Your task to perform on an android device: open app "Cash App" (install if not already installed) Image 0: 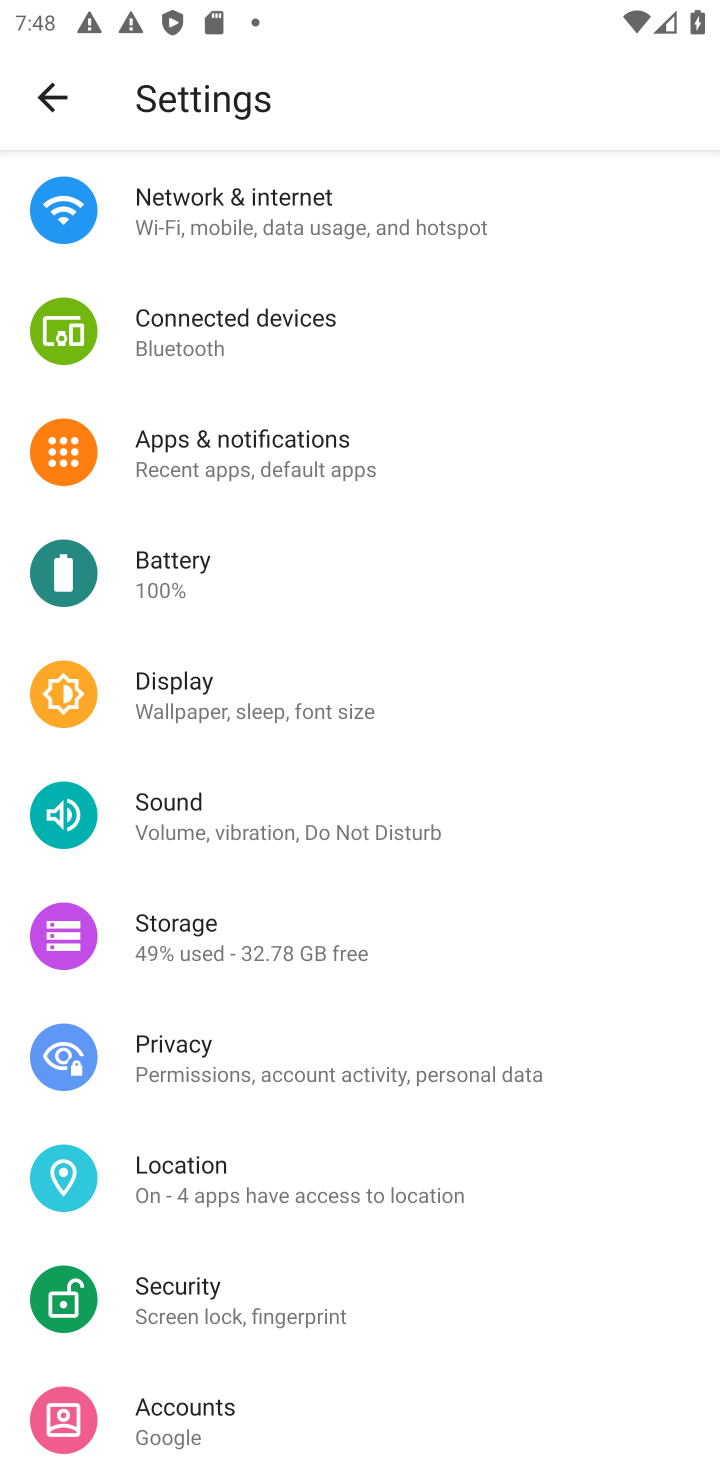
Step 0: press home button
Your task to perform on an android device: open app "Cash App" (install if not already installed) Image 1: 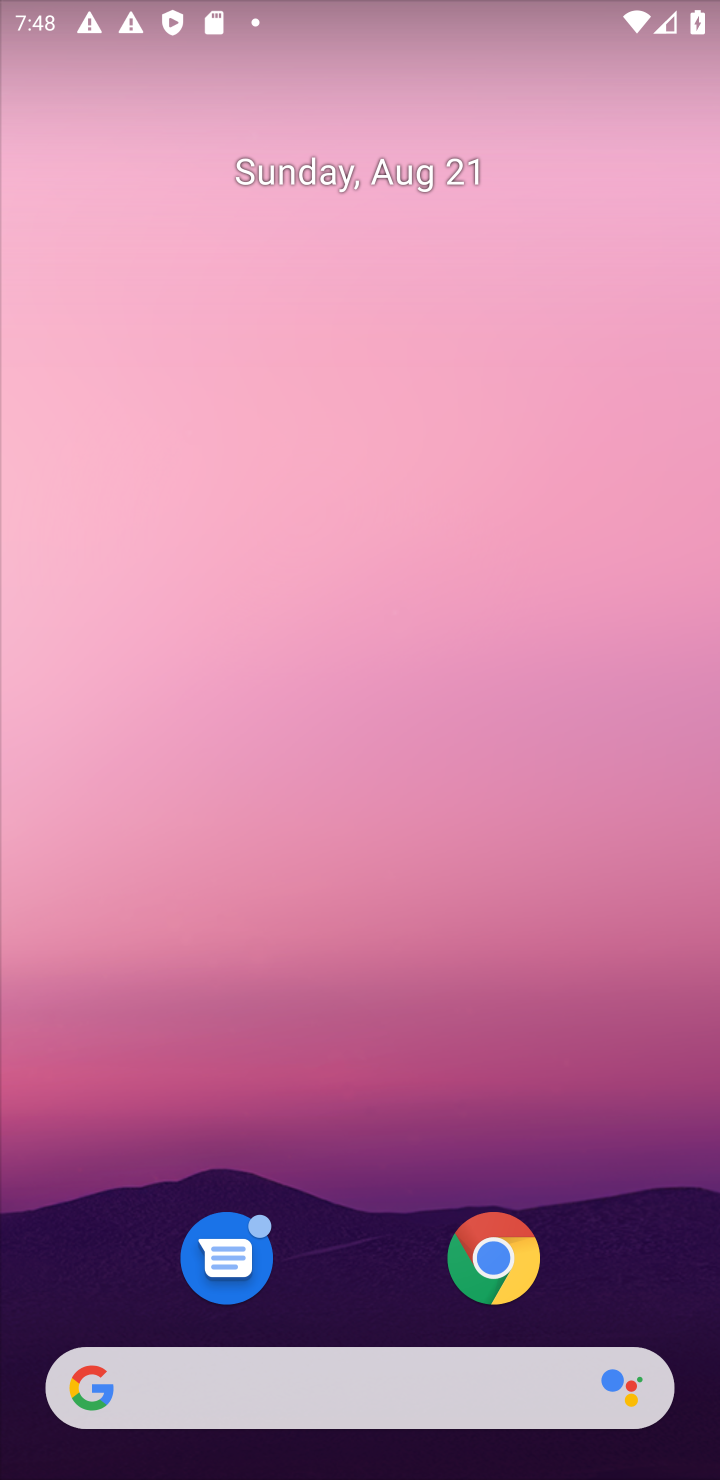
Step 1: drag from (404, 799) to (601, 182)
Your task to perform on an android device: open app "Cash App" (install if not already installed) Image 2: 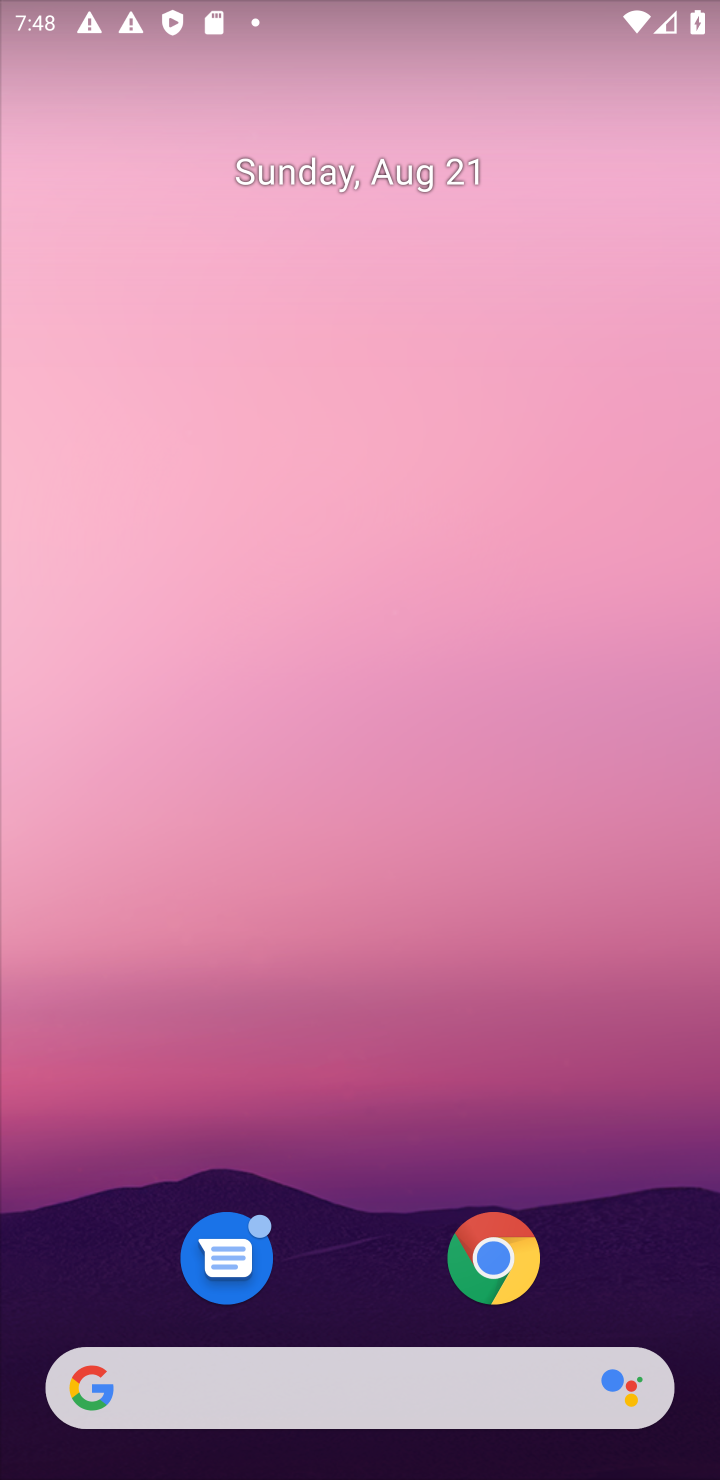
Step 2: drag from (237, 1267) to (312, 0)
Your task to perform on an android device: open app "Cash App" (install if not already installed) Image 3: 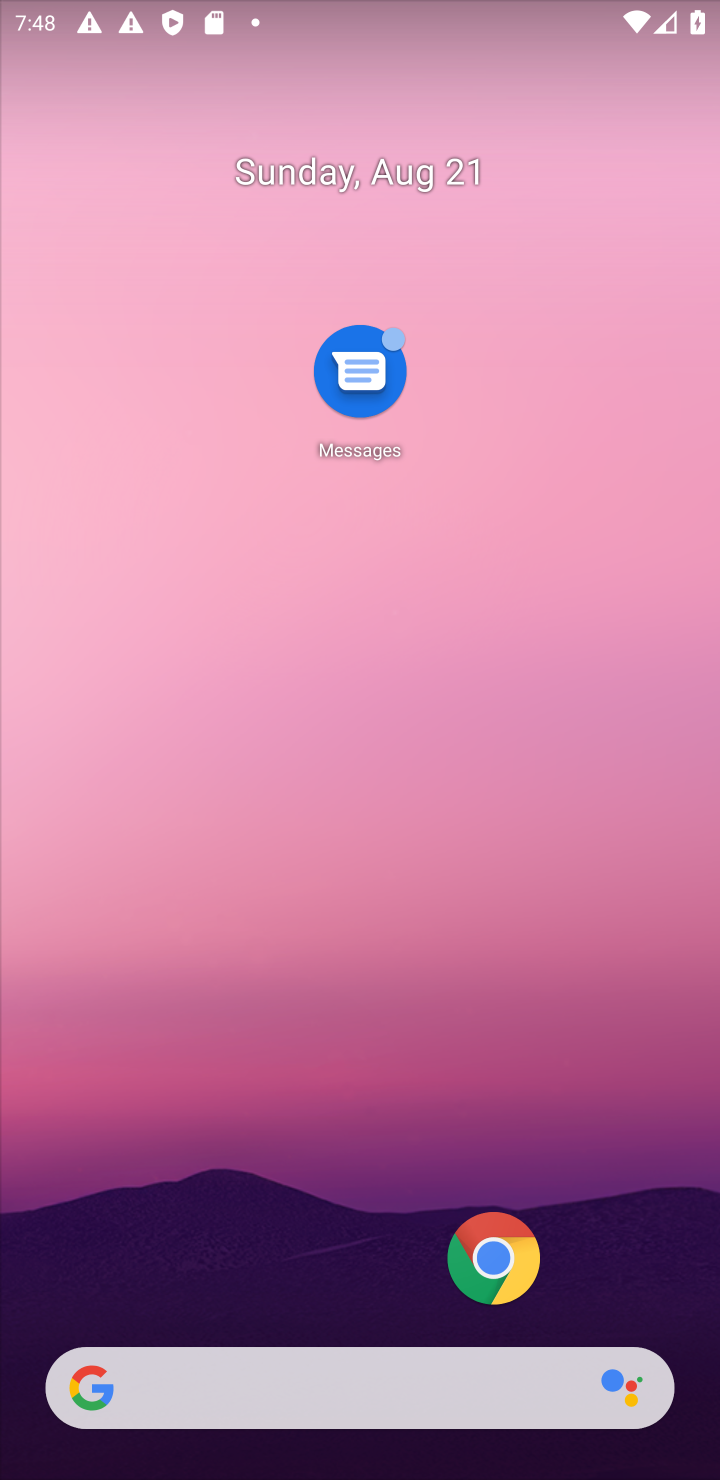
Step 3: drag from (304, 1352) to (393, 0)
Your task to perform on an android device: open app "Cash App" (install if not already installed) Image 4: 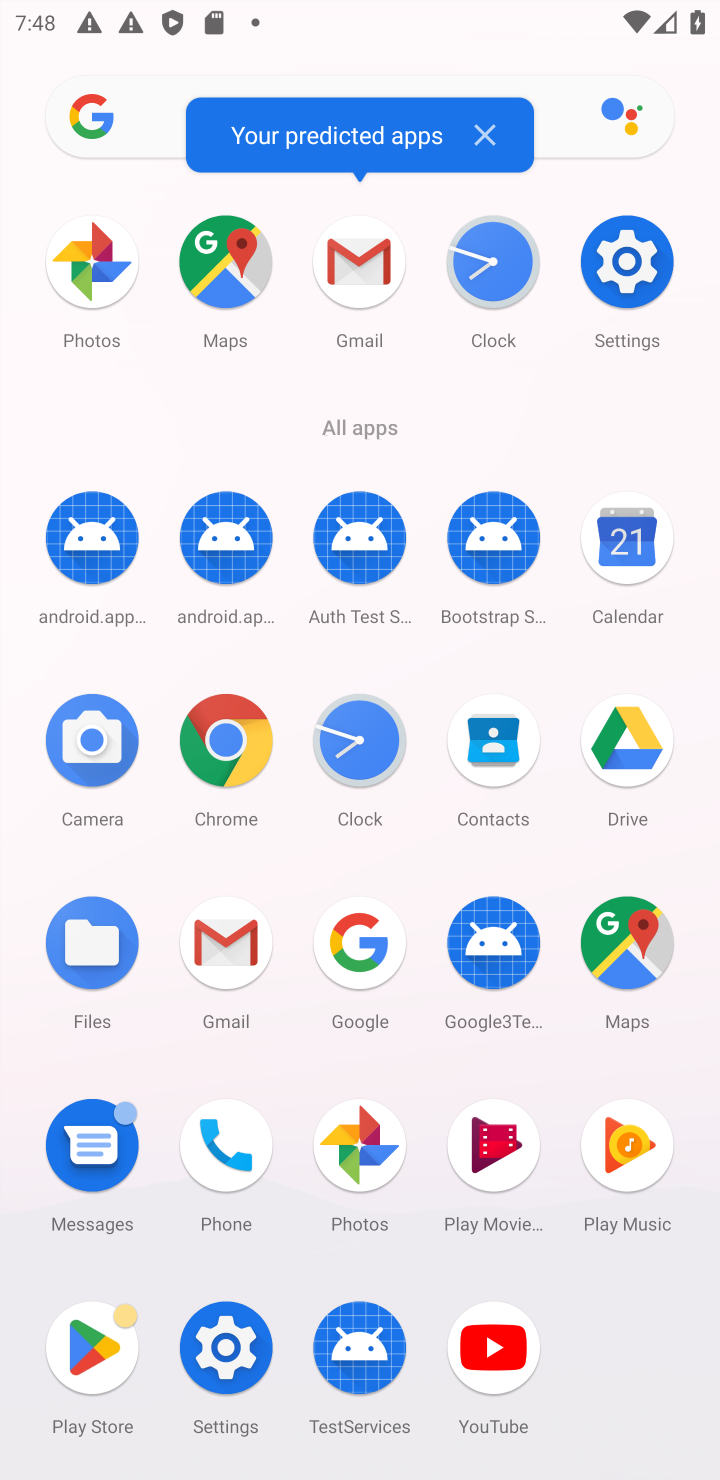
Step 4: click (93, 1351)
Your task to perform on an android device: open app "Cash App" (install if not already installed) Image 5: 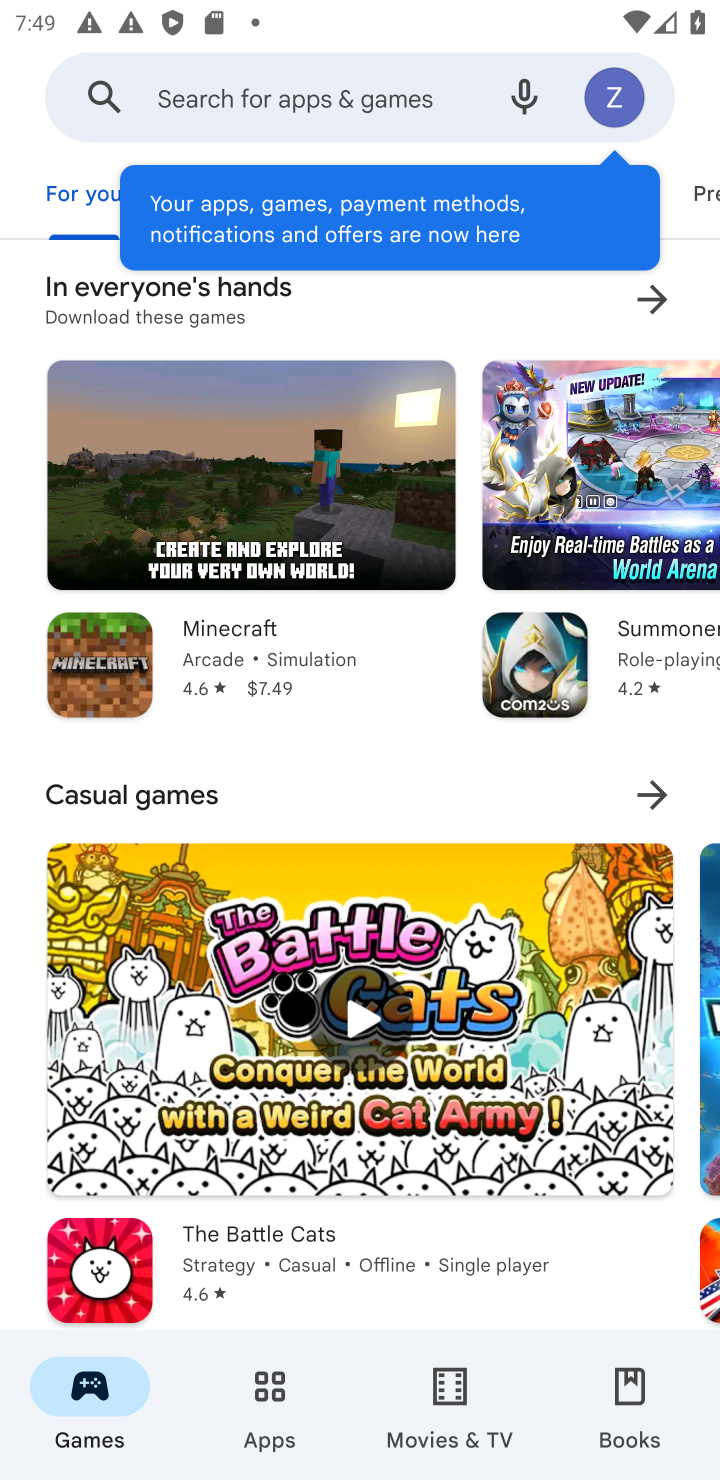
Step 5: click (242, 110)
Your task to perform on an android device: open app "Cash App" (install if not already installed) Image 6: 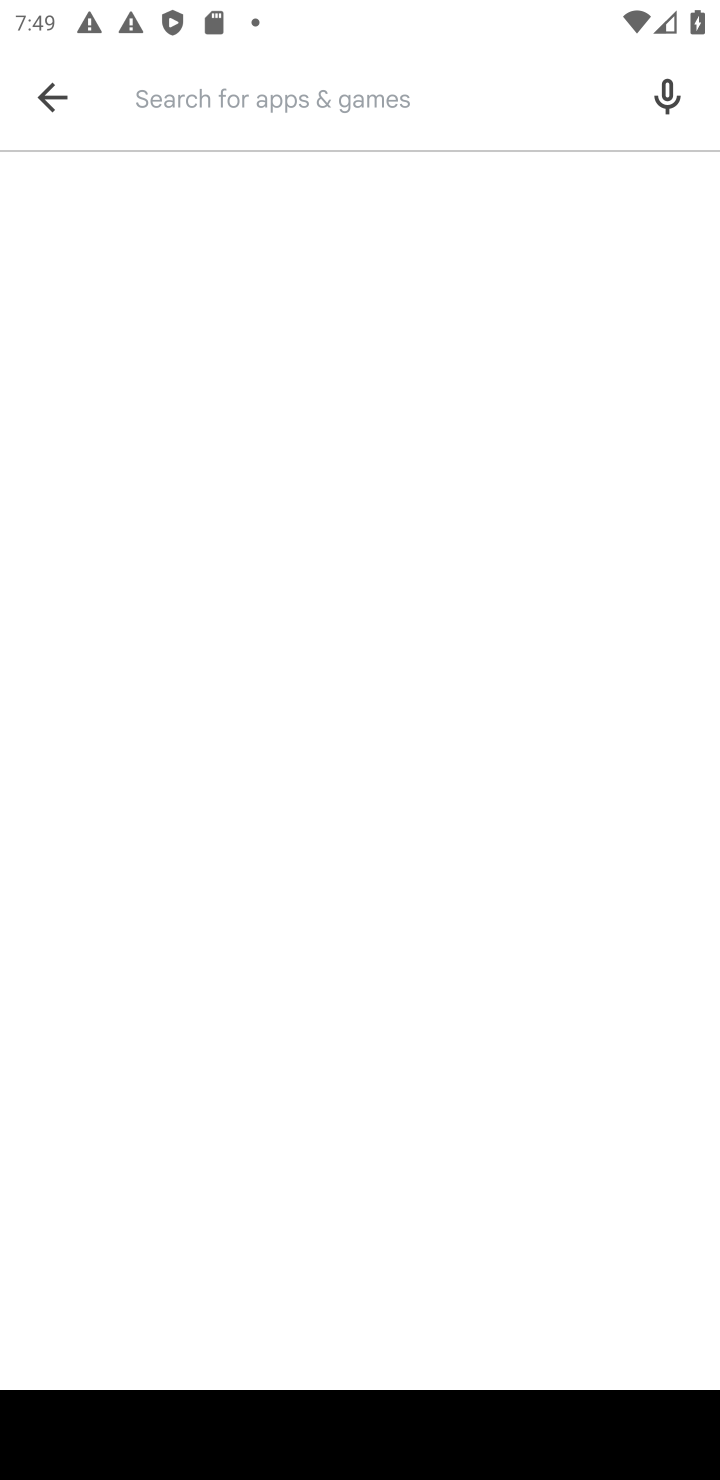
Step 6: type "Cash App"
Your task to perform on an android device: open app "Cash App" (install if not already installed) Image 7: 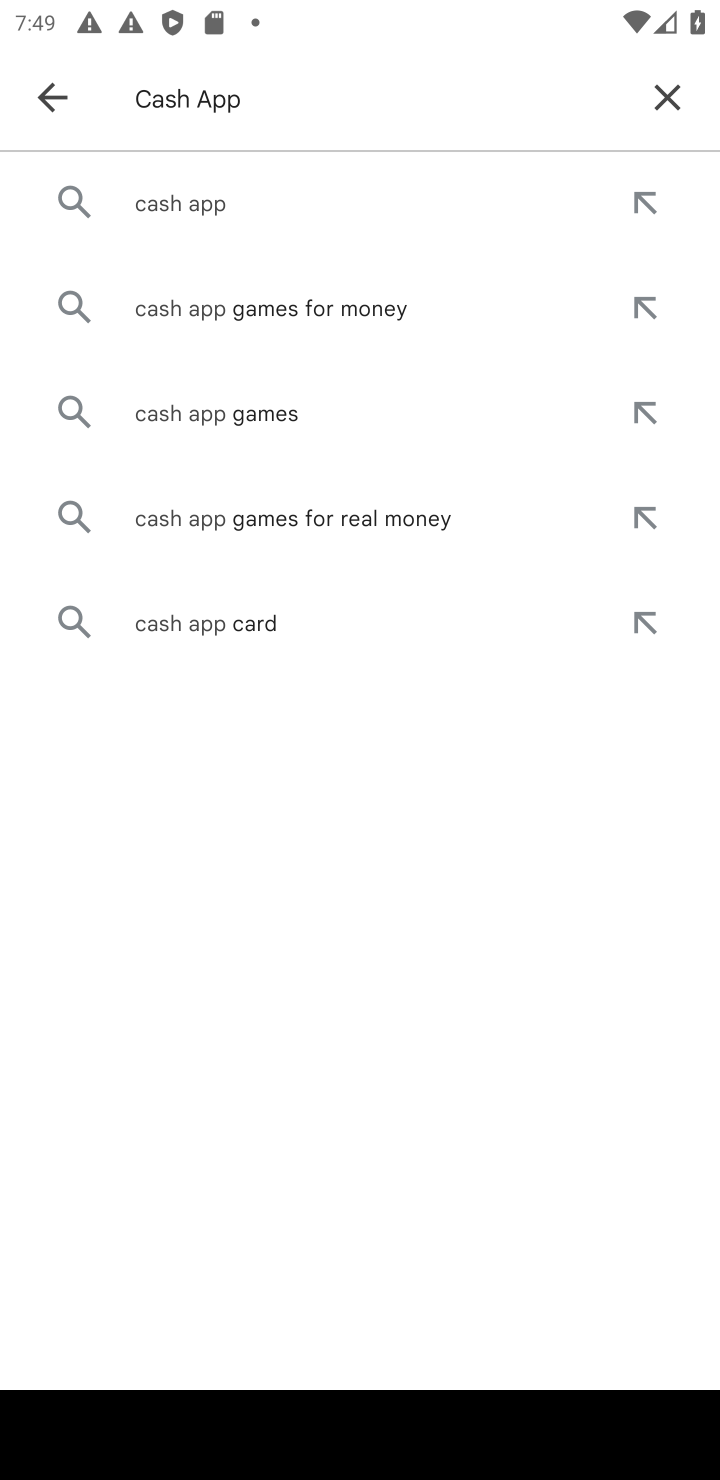
Step 7: click (212, 224)
Your task to perform on an android device: open app "Cash App" (install if not already installed) Image 8: 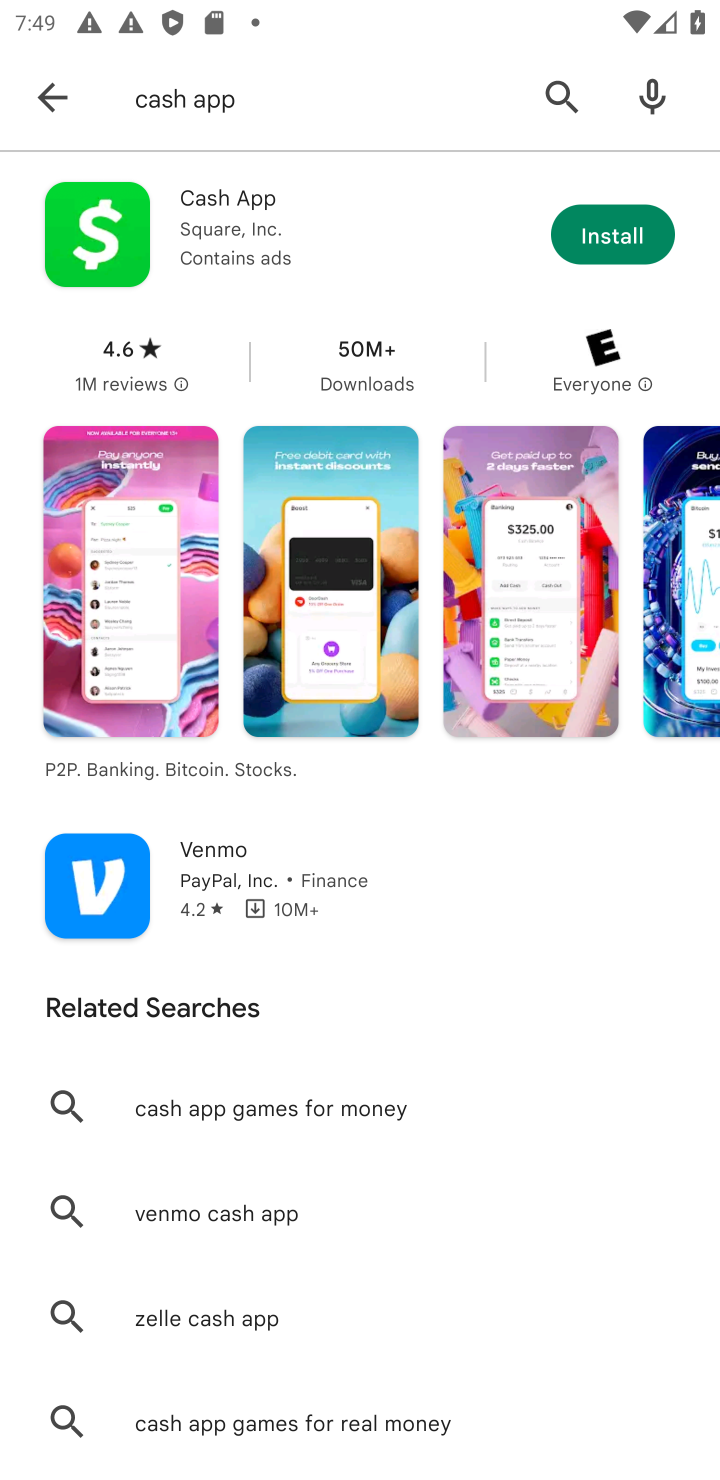
Step 8: click (594, 234)
Your task to perform on an android device: open app "Cash App" (install if not already installed) Image 9: 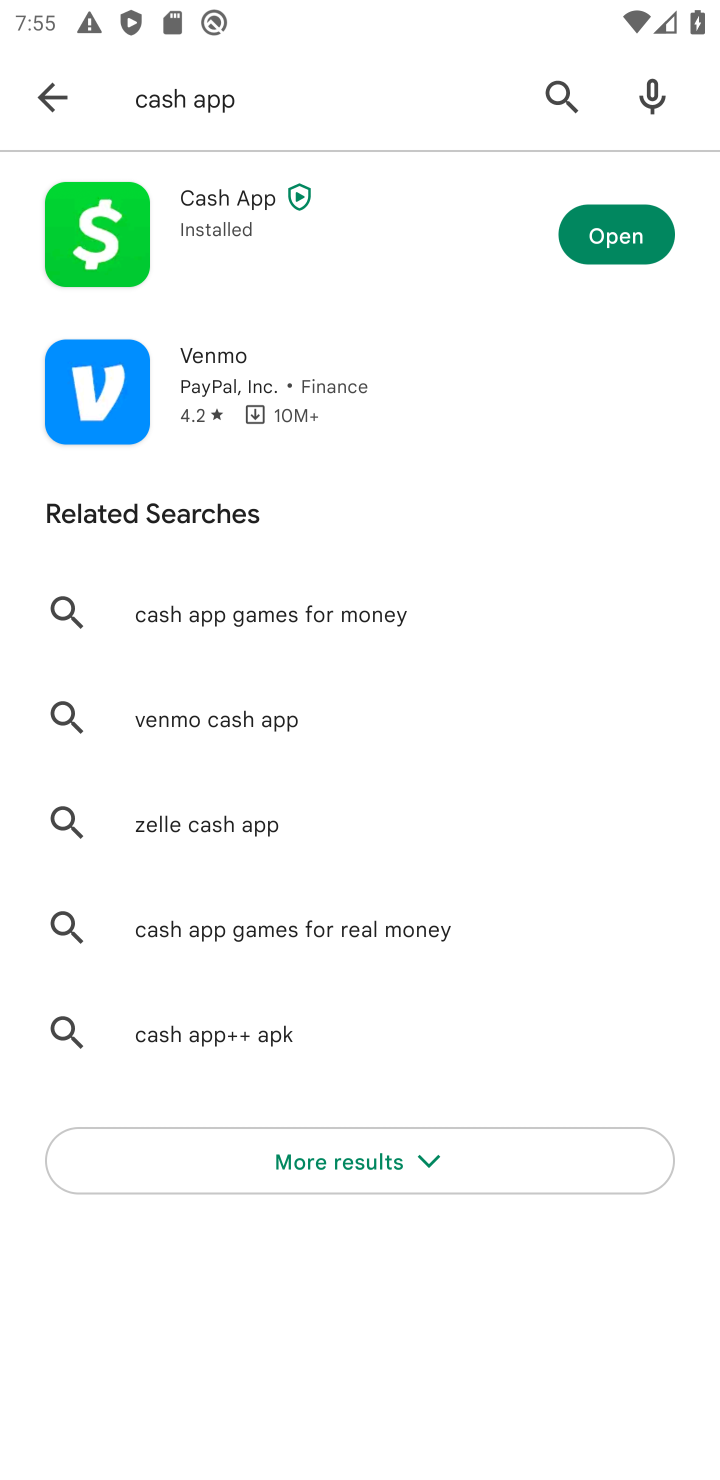
Step 9: click (626, 250)
Your task to perform on an android device: open app "Cash App" (install if not already installed) Image 10: 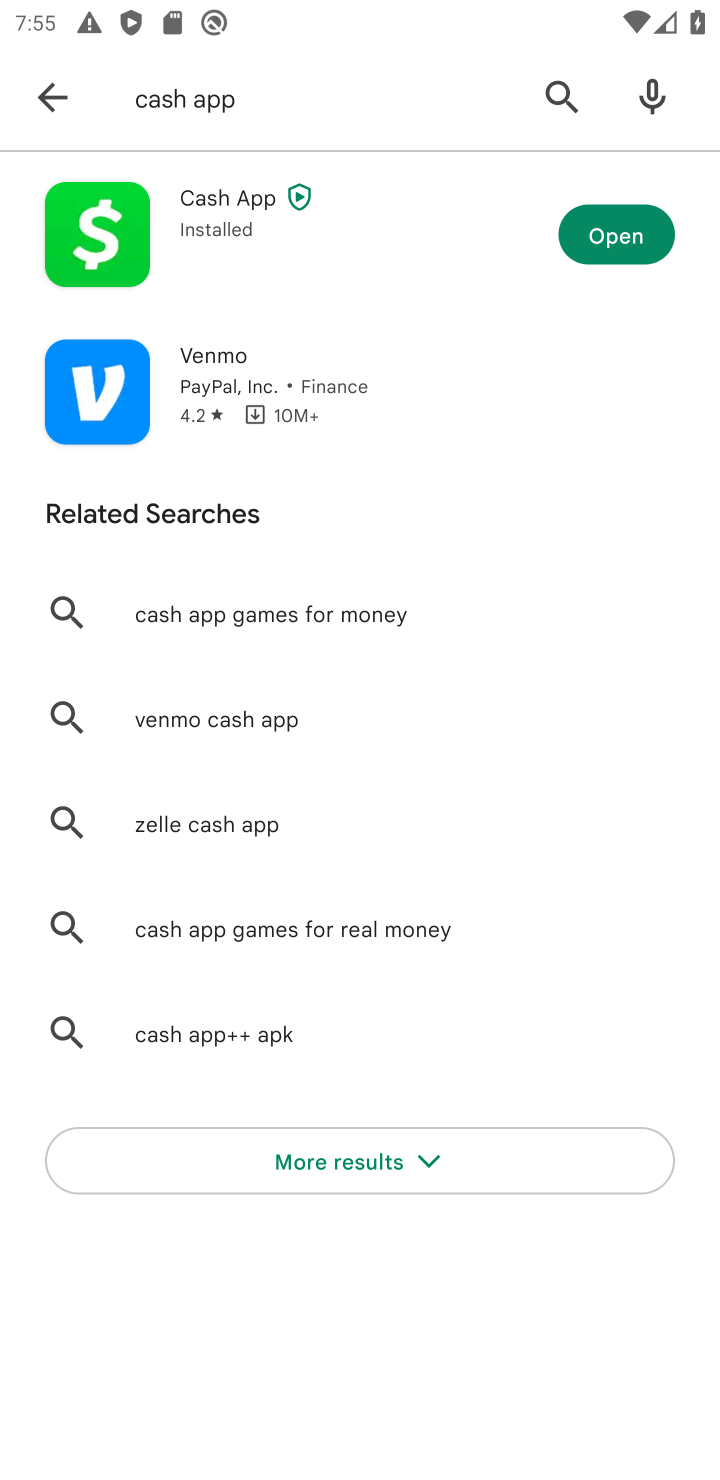
Step 10: task complete